Your task to perform on an android device: Go to accessibility settings Image 0: 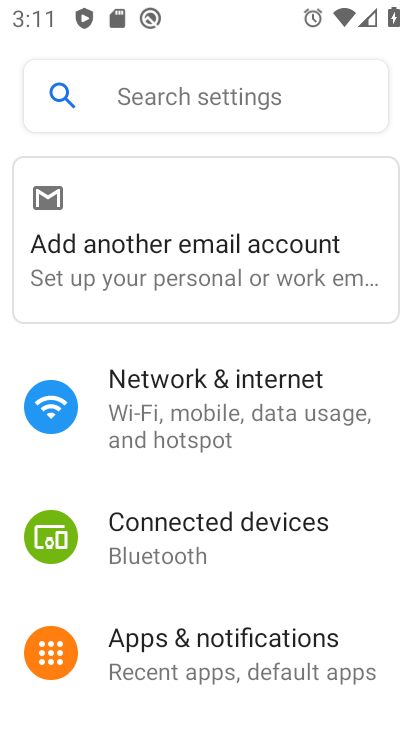
Step 0: drag from (288, 625) to (311, 258)
Your task to perform on an android device: Go to accessibility settings Image 1: 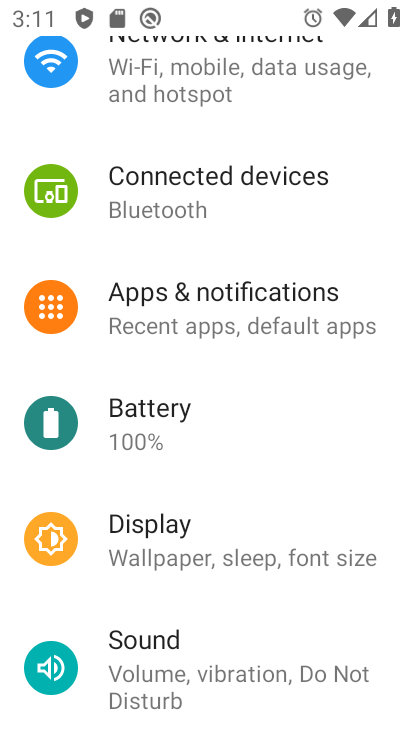
Step 1: drag from (294, 572) to (304, 251)
Your task to perform on an android device: Go to accessibility settings Image 2: 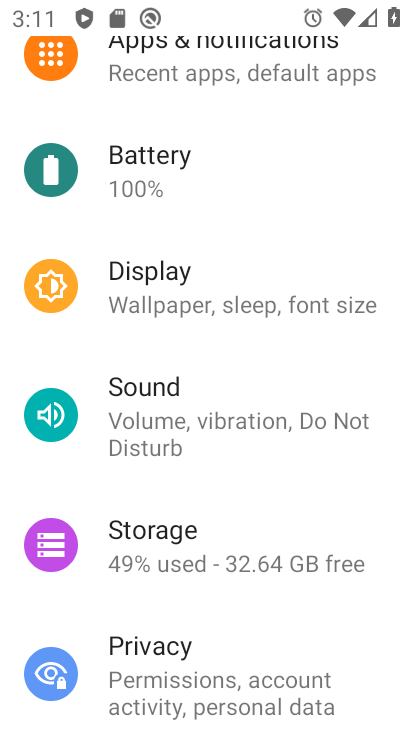
Step 2: drag from (259, 657) to (301, 305)
Your task to perform on an android device: Go to accessibility settings Image 3: 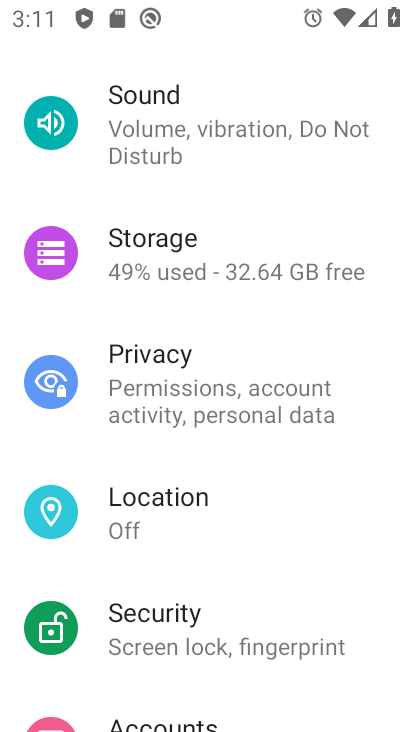
Step 3: drag from (214, 581) to (233, 312)
Your task to perform on an android device: Go to accessibility settings Image 4: 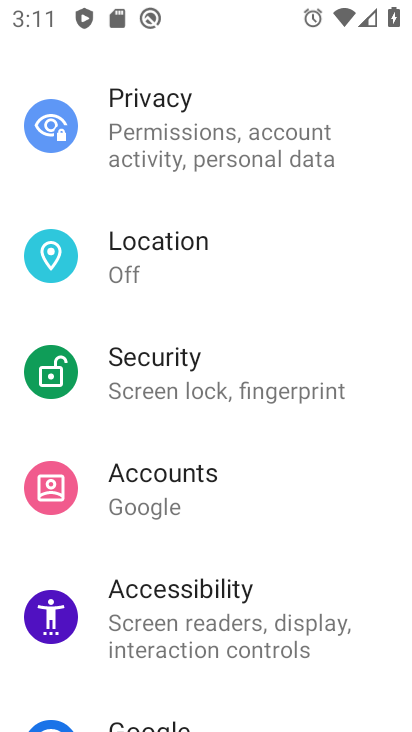
Step 4: click (203, 669)
Your task to perform on an android device: Go to accessibility settings Image 5: 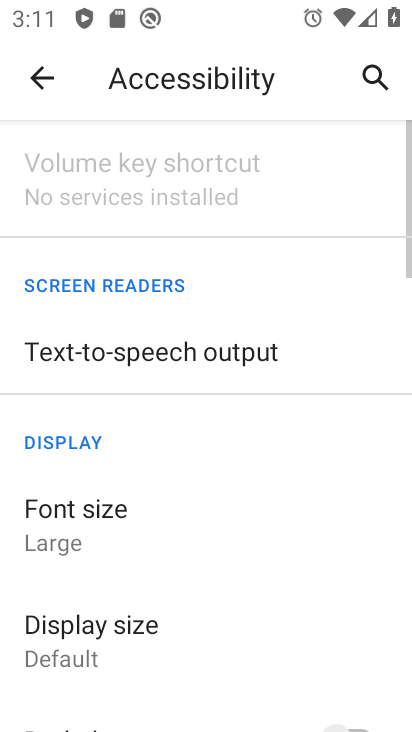
Step 5: task complete